Your task to perform on an android device: Search for vegetarian restaurants on Maps Image 0: 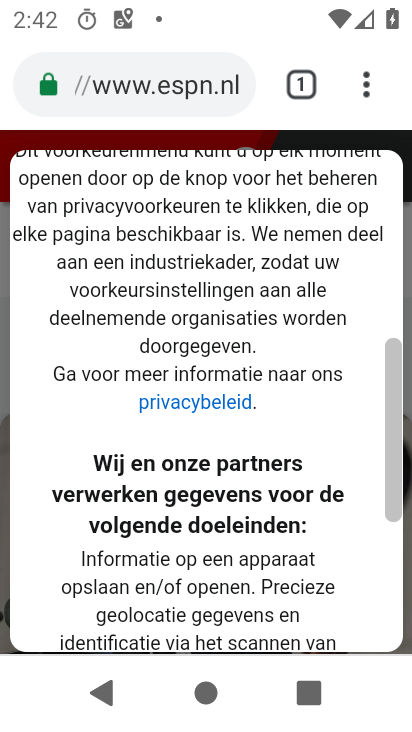
Step 0: press home button
Your task to perform on an android device: Search for vegetarian restaurants on Maps Image 1: 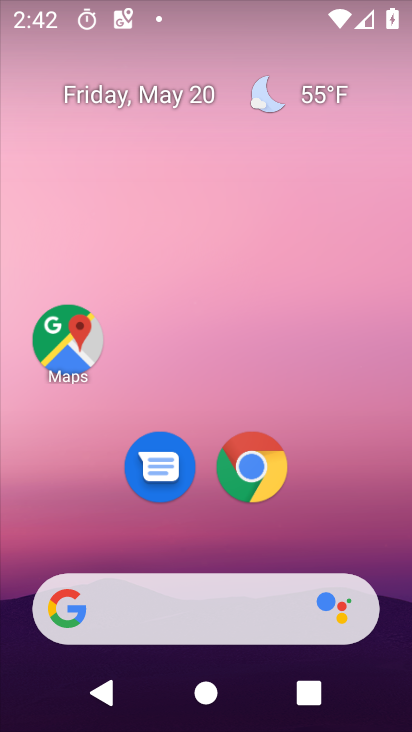
Step 1: click (71, 351)
Your task to perform on an android device: Search for vegetarian restaurants on Maps Image 2: 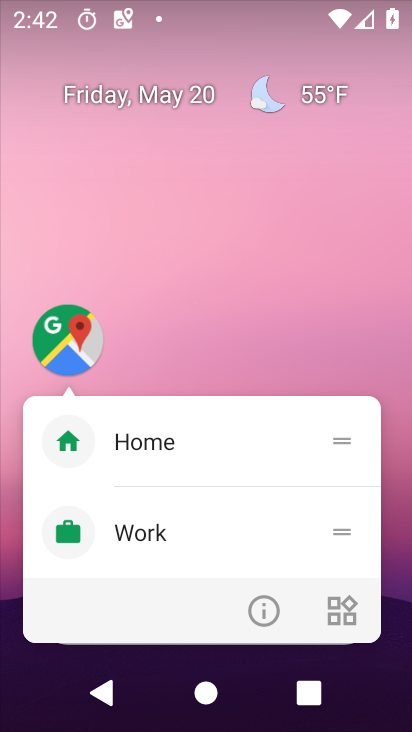
Step 2: click (66, 334)
Your task to perform on an android device: Search for vegetarian restaurants on Maps Image 3: 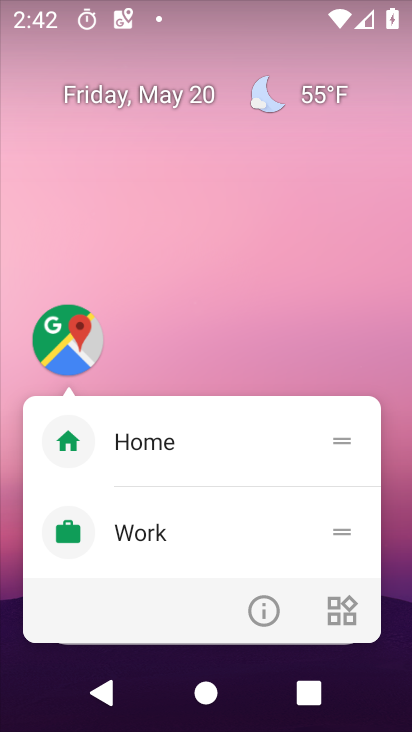
Step 3: click (67, 334)
Your task to perform on an android device: Search for vegetarian restaurants on Maps Image 4: 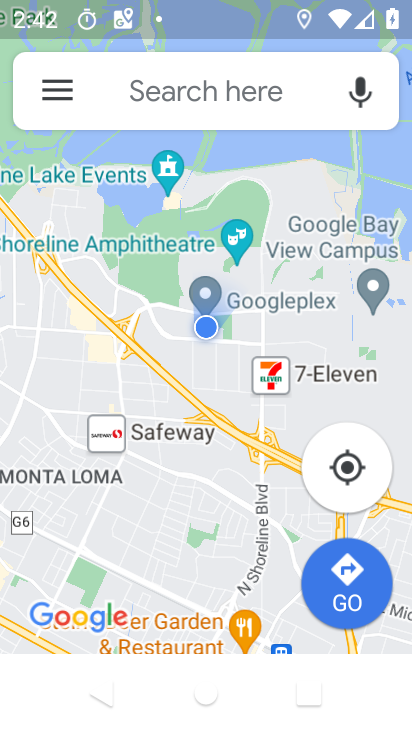
Step 4: click (176, 81)
Your task to perform on an android device: Search for vegetarian restaurants on Maps Image 5: 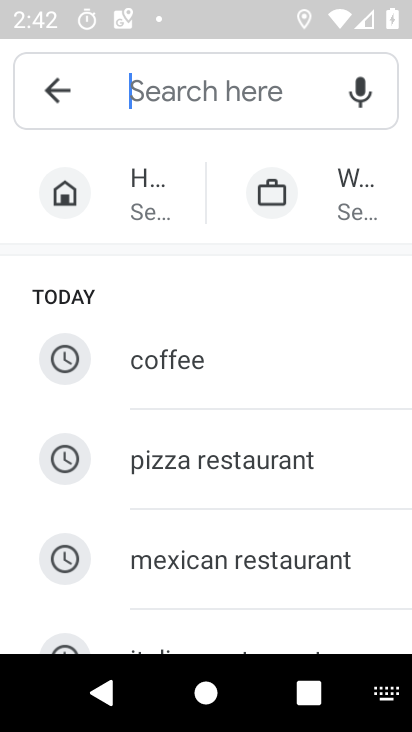
Step 5: type "vegetarian restaurants"
Your task to perform on an android device: Search for vegetarian restaurants on Maps Image 6: 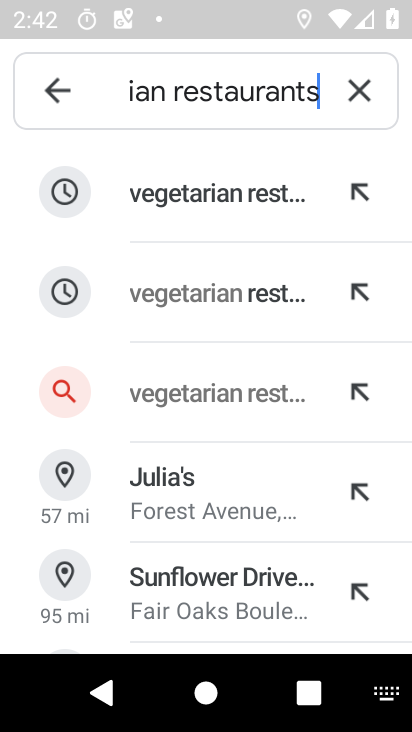
Step 6: click (155, 199)
Your task to perform on an android device: Search for vegetarian restaurants on Maps Image 7: 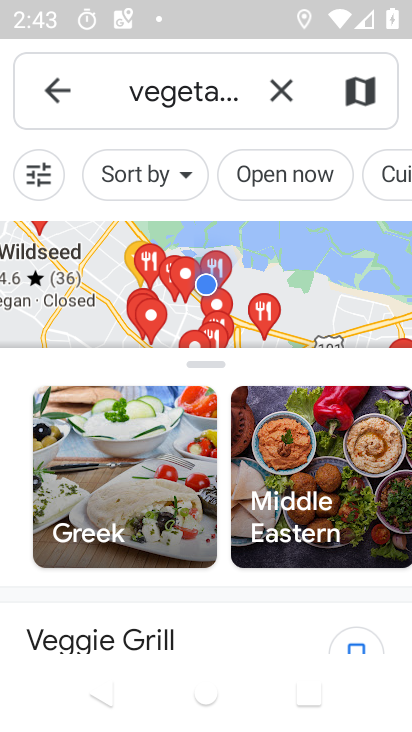
Step 7: task complete